Your task to perform on an android device: find snoozed emails in the gmail app Image 0: 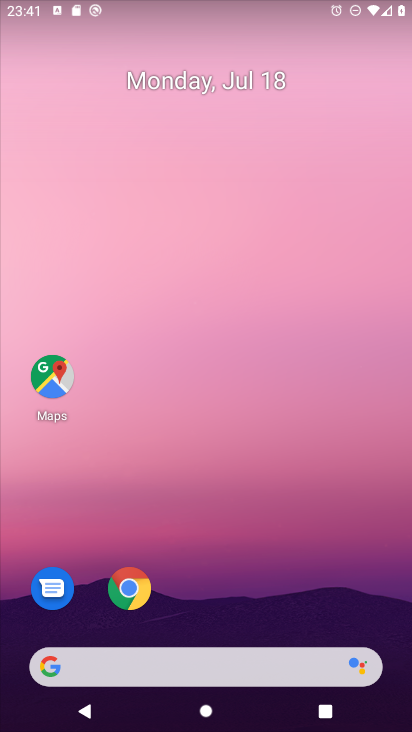
Step 0: drag from (385, 636) to (387, 112)
Your task to perform on an android device: find snoozed emails in the gmail app Image 1: 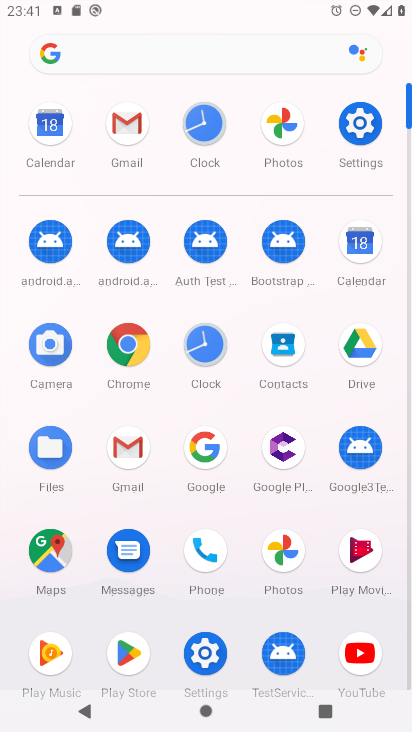
Step 1: click (129, 445)
Your task to perform on an android device: find snoozed emails in the gmail app Image 2: 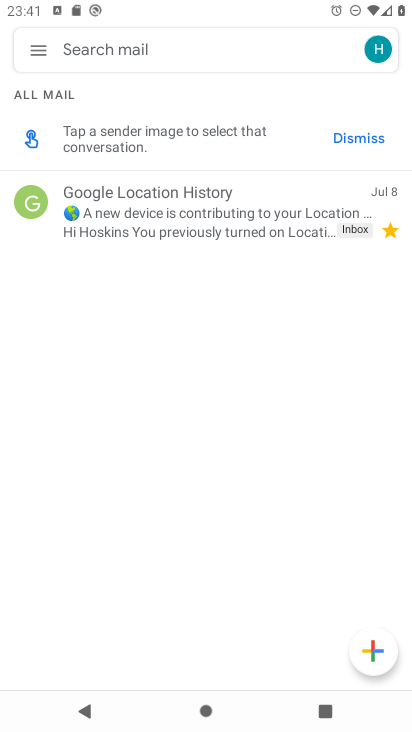
Step 2: click (37, 49)
Your task to perform on an android device: find snoozed emails in the gmail app Image 3: 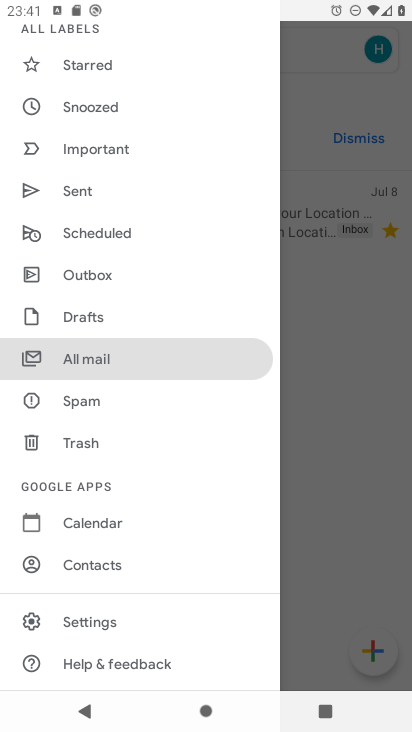
Step 3: click (106, 104)
Your task to perform on an android device: find snoozed emails in the gmail app Image 4: 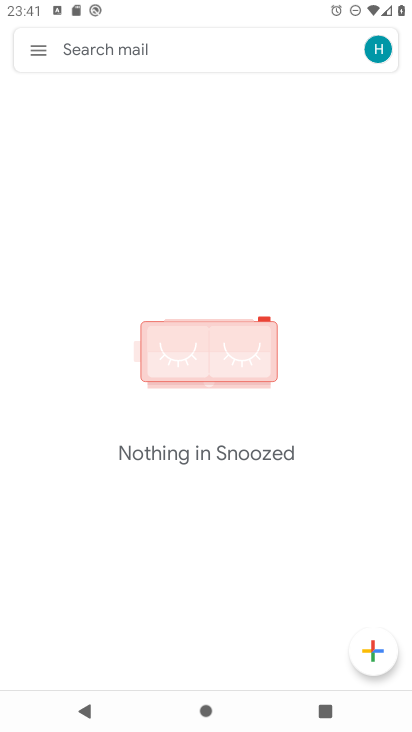
Step 4: task complete